Your task to perform on an android device: visit the assistant section in the google photos Image 0: 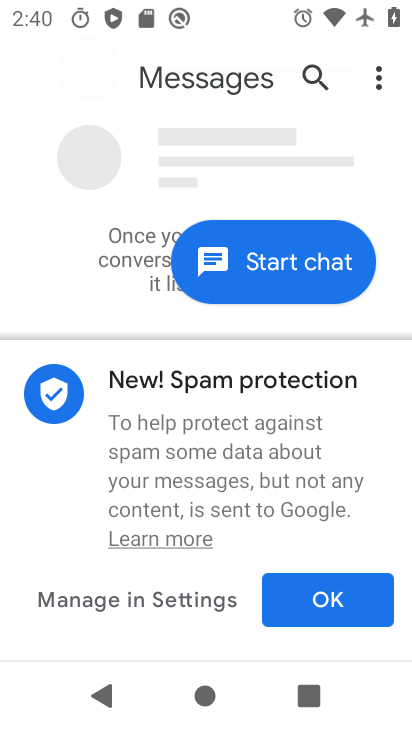
Step 0: press home button
Your task to perform on an android device: visit the assistant section in the google photos Image 1: 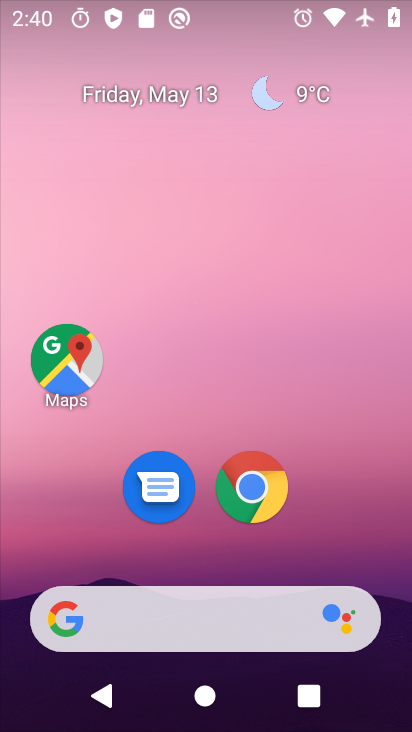
Step 1: drag from (233, 545) to (217, 152)
Your task to perform on an android device: visit the assistant section in the google photos Image 2: 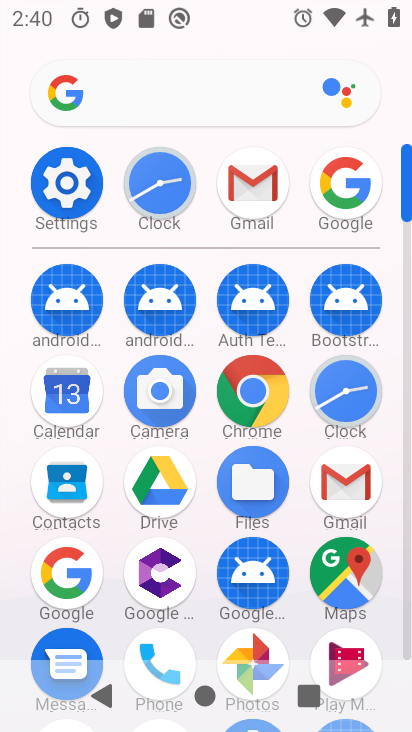
Step 2: drag from (120, 555) to (146, 271)
Your task to perform on an android device: visit the assistant section in the google photos Image 3: 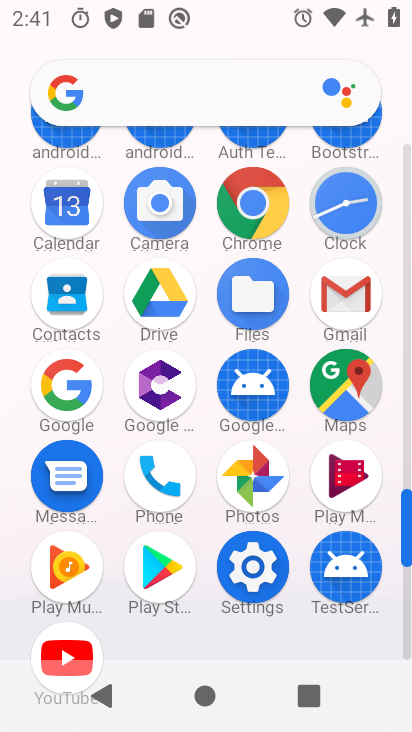
Step 3: click (254, 479)
Your task to perform on an android device: visit the assistant section in the google photos Image 4: 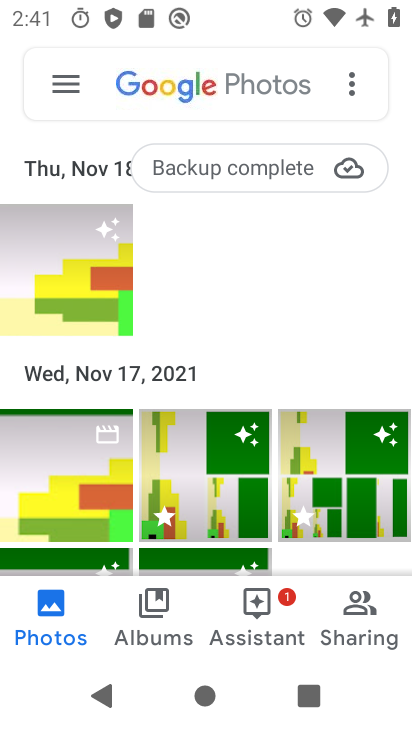
Step 4: click (265, 624)
Your task to perform on an android device: visit the assistant section in the google photos Image 5: 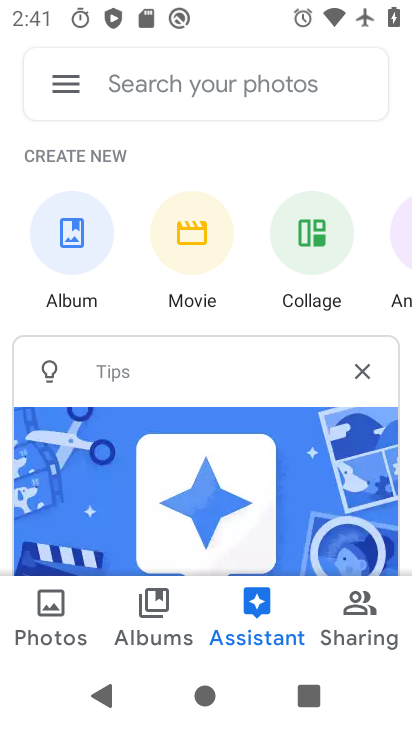
Step 5: task complete